Your task to perform on an android device: Open location settings Image 0: 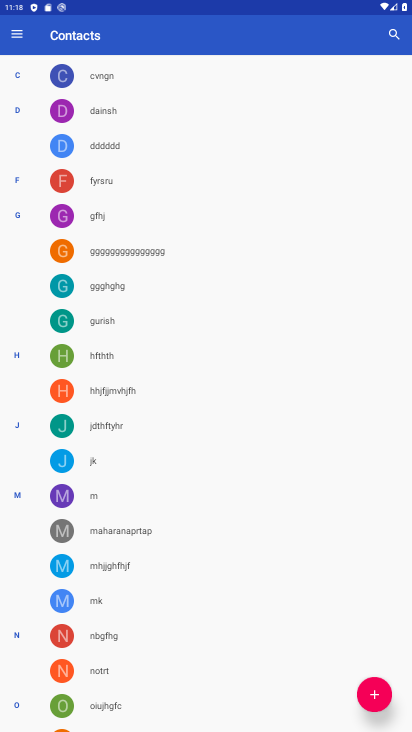
Step 0: press home button
Your task to perform on an android device: Open location settings Image 1: 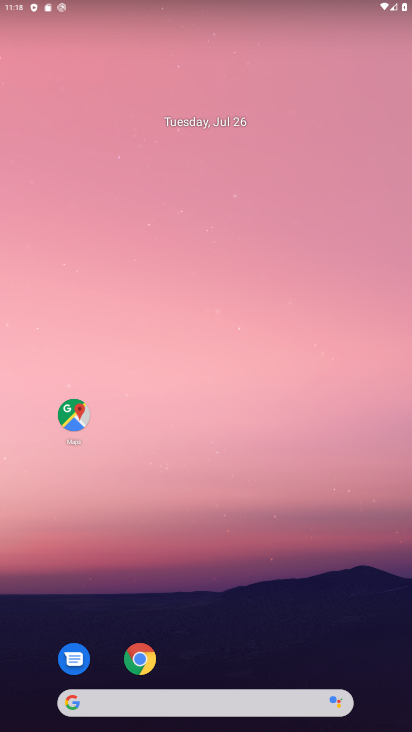
Step 1: drag from (233, 503) to (309, 12)
Your task to perform on an android device: Open location settings Image 2: 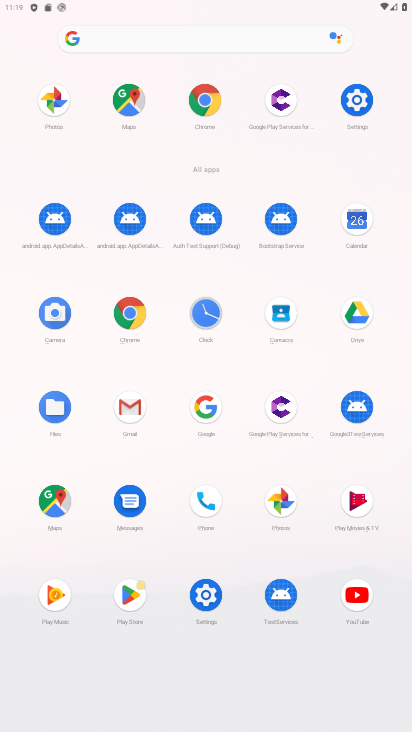
Step 2: click (353, 113)
Your task to perform on an android device: Open location settings Image 3: 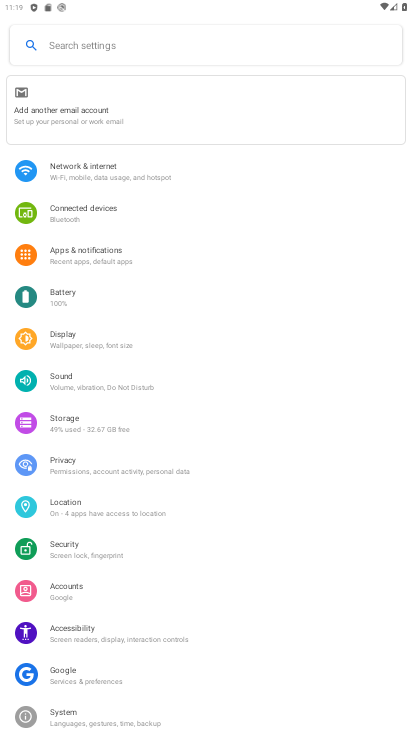
Step 3: drag from (94, 480) to (120, 255)
Your task to perform on an android device: Open location settings Image 4: 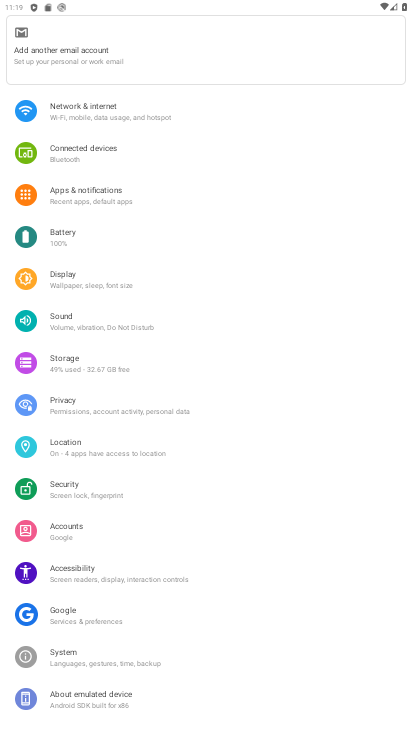
Step 4: click (81, 451)
Your task to perform on an android device: Open location settings Image 5: 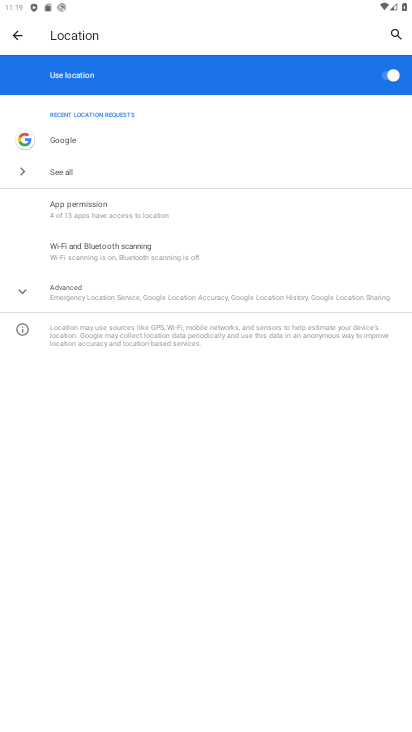
Step 5: task complete